Your task to perform on an android device: Open CNN.com Image 0: 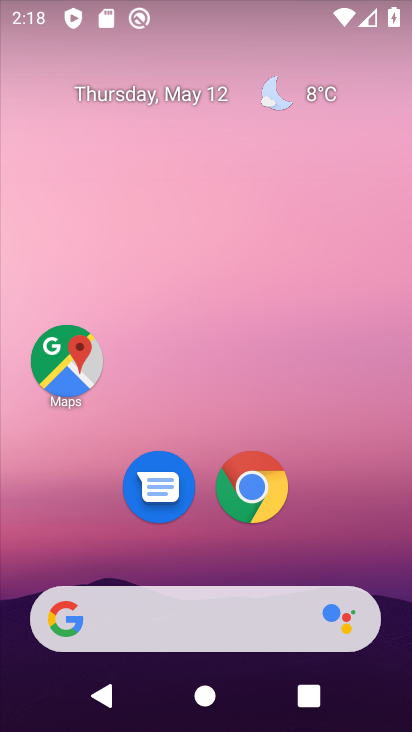
Step 0: click (241, 623)
Your task to perform on an android device: Open CNN.com Image 1: 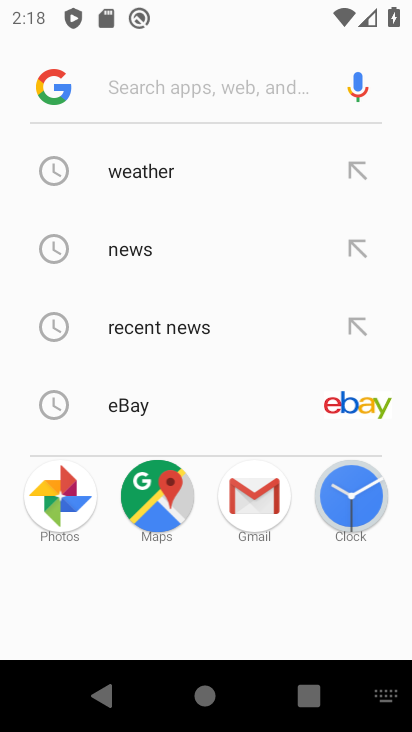
Step 1: type "cnn"
Your task to perform on an android device: Open CNN.com Image 2: 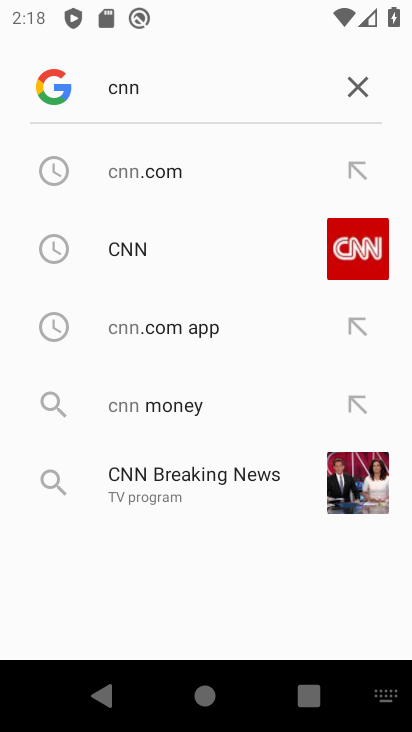
Step 2: click (174, 171)
Your task to perform on an android device: Open CNN.com Image 3: 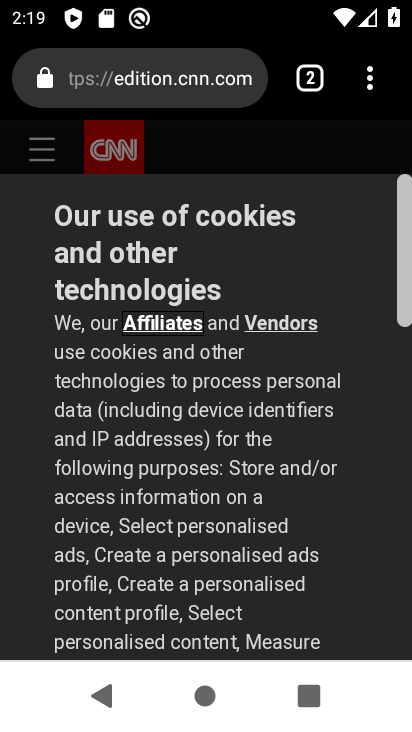
Step 3: task complete